Your task to perform on an android device: Open sound settings Image 0: 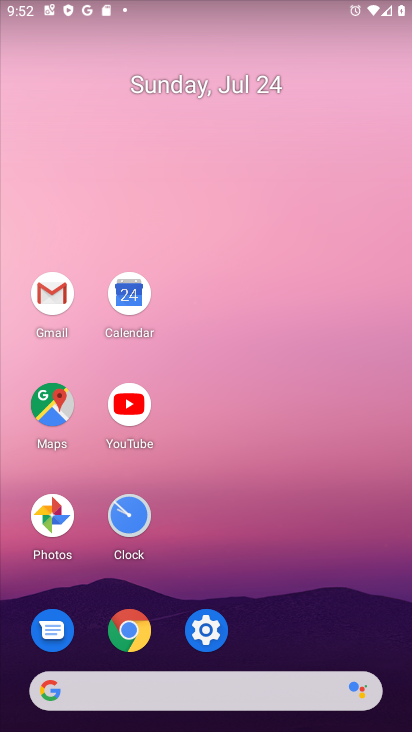
Step 0: click (297, 487)
Your task to perform on an android device: Open sound settings Image 1: 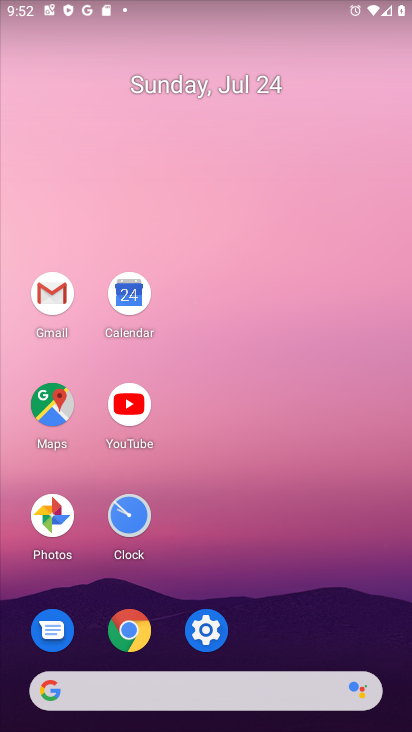
Step 1: click (207, 629)
Your task to perform on an android device: Open sound settings Image 2: 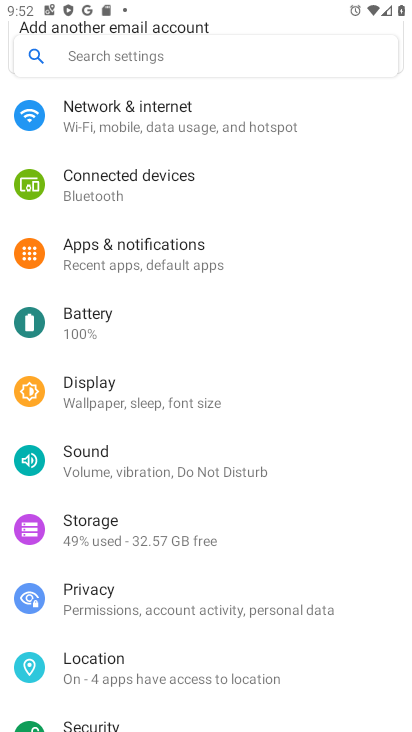
Step 2: click (76, 451)
Your task to perform on an android device: Open sound settings Image 3: 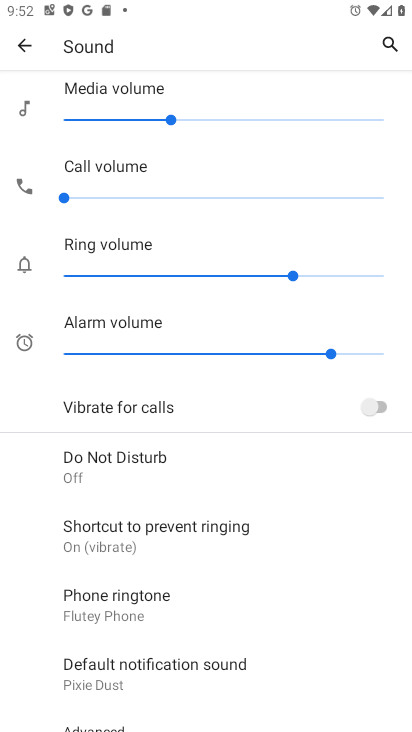
Step 3: task complete